Your task to perform on an android device: Open the map Image 0: 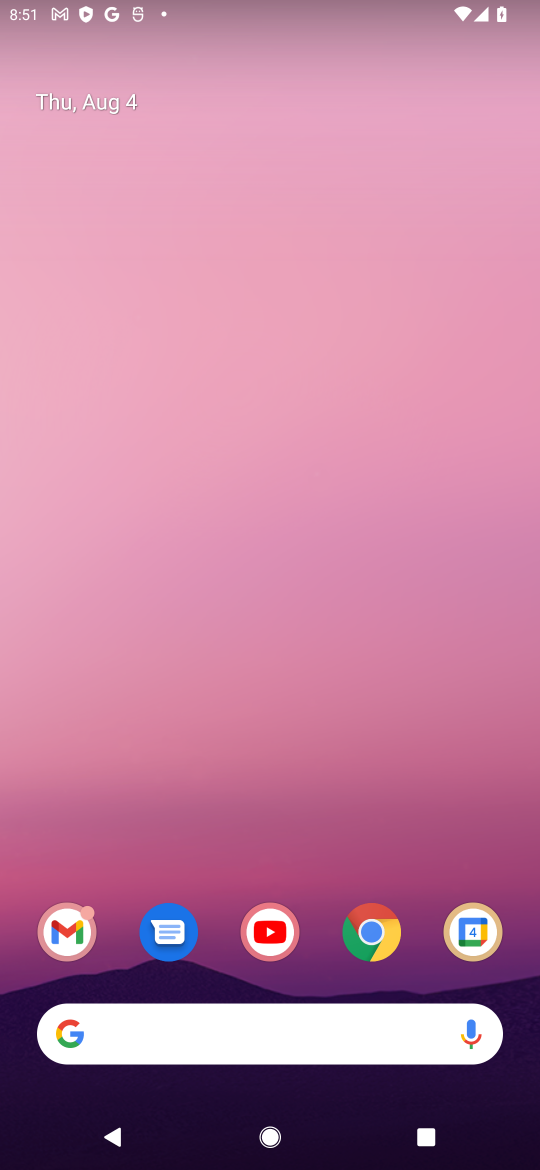
Step 0: drag from (320, 966) to (190, 251)
Your task to perform on an android device: Open the map Image 1: 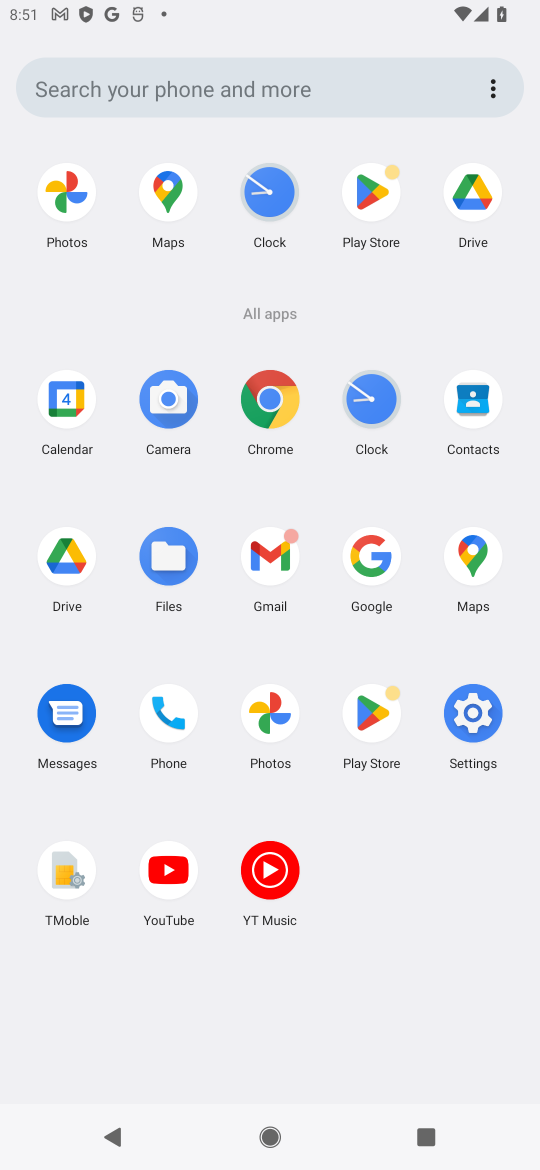
Step 1: click (478, 574)
Your task to perform on an android device: Open the map Image 2: 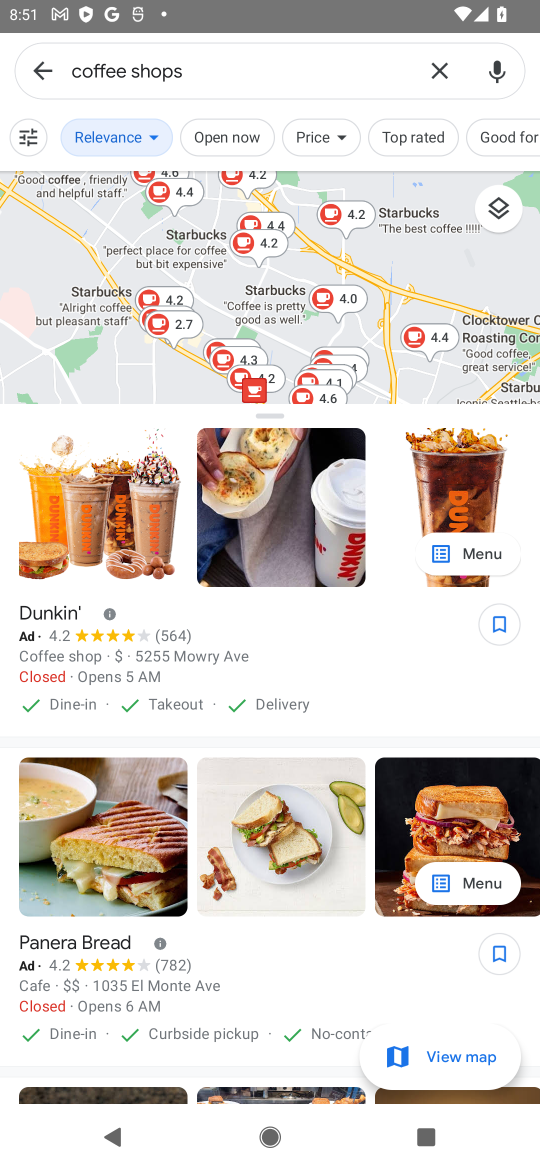
Step 2: task complete